Your task to perform on an android device: turn off airplane mode Image 0: 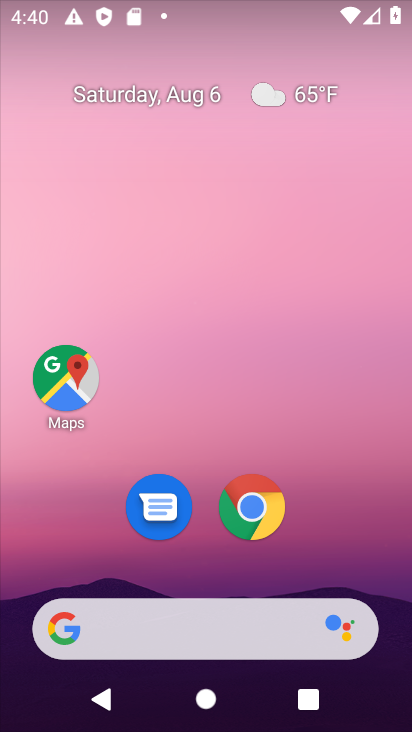
Step 0: drag from (207, 424) to (263, 102)
Your task to perform on an android device: turn off airplane mode Image 1: 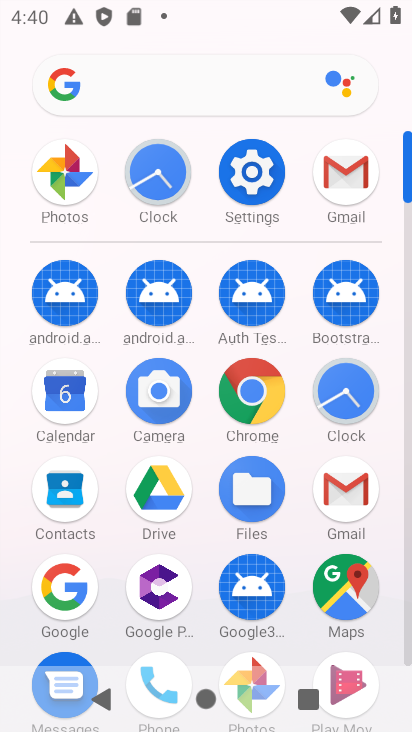
Step 1: click (272, 179)
Your task to perform on an android device: turn off airplane mode Image 2: 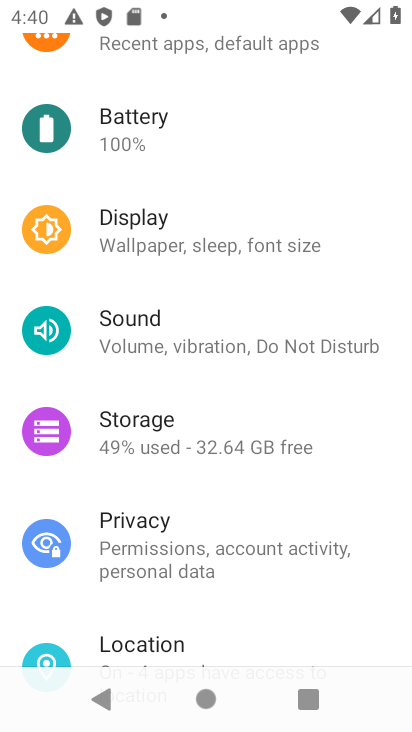
Step 2: drag from (242, 115) to (242, 405)
Your task to perform on an android device: turn off airplane mode Image 3: 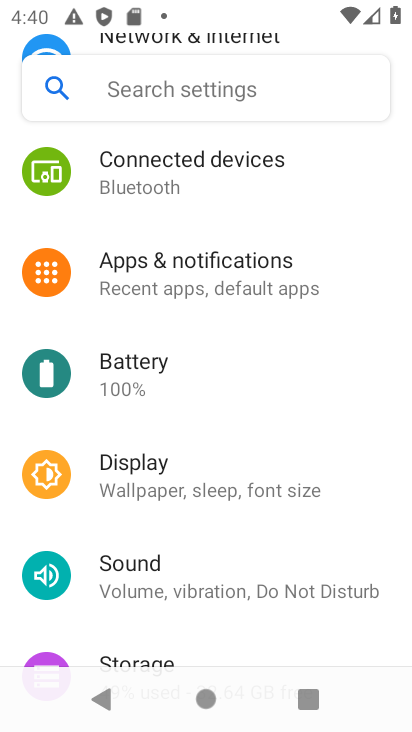
Step 3: drag from (215, 157) to (218, 471)
Your task to perform on an android device: turn off airplane mode Image 4: 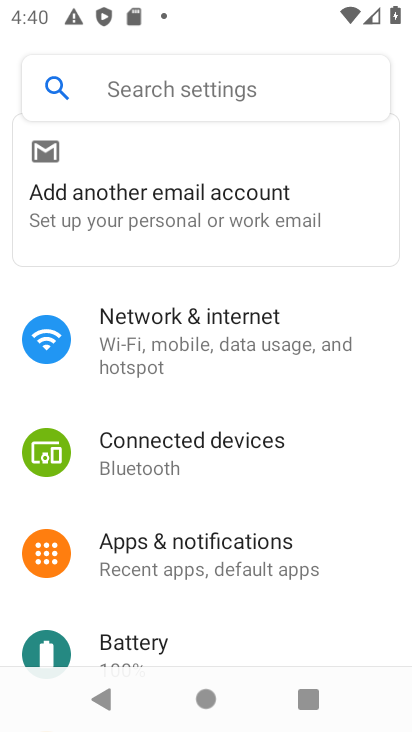
Step 4: click (233, 334)
Your task to perform on an android device: turn off airplane mode Image 5: 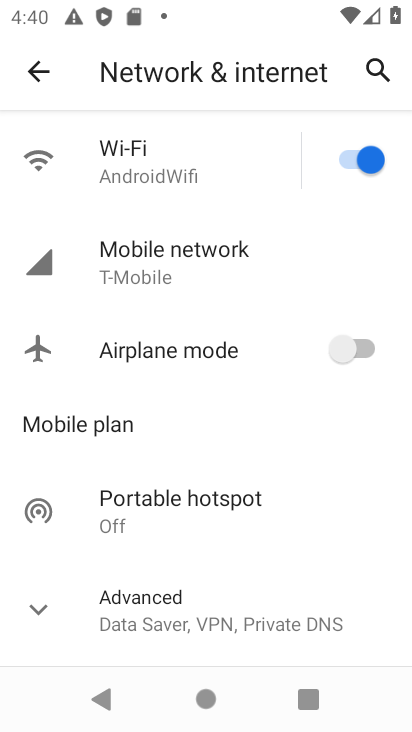
Step 5: task complete